Your task to perform on an android device: snooze an email in the gmail app Image 0: 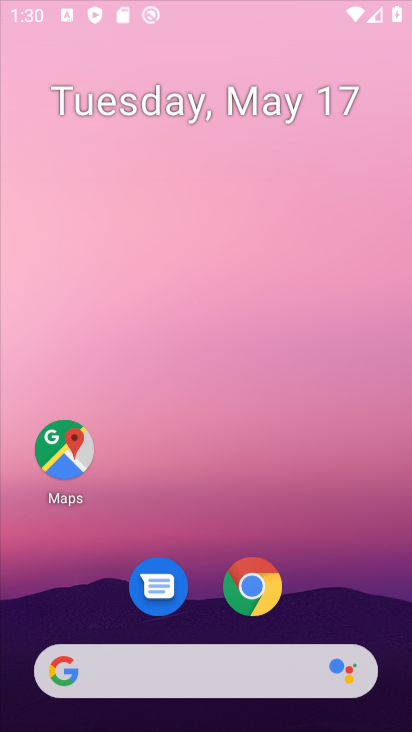
Step 0: click (282, 153)
Your task to perform on an android device: snooze an email in the gmail app Image 1: 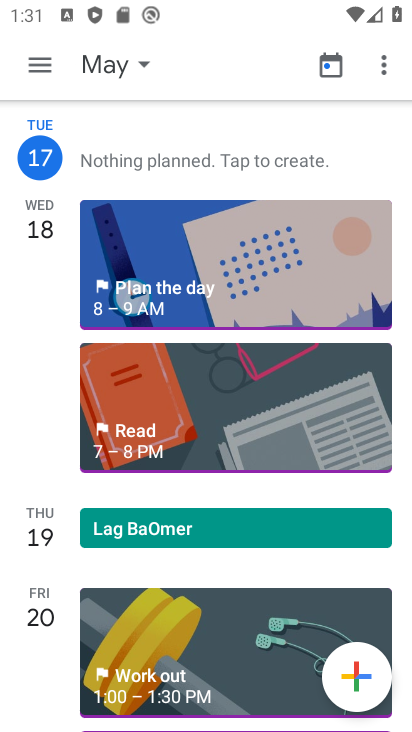
Step 1: drag from (253, 594) to (252, 250)
Your task to perform on an android device: snooze an email in the gmail app Image 2: 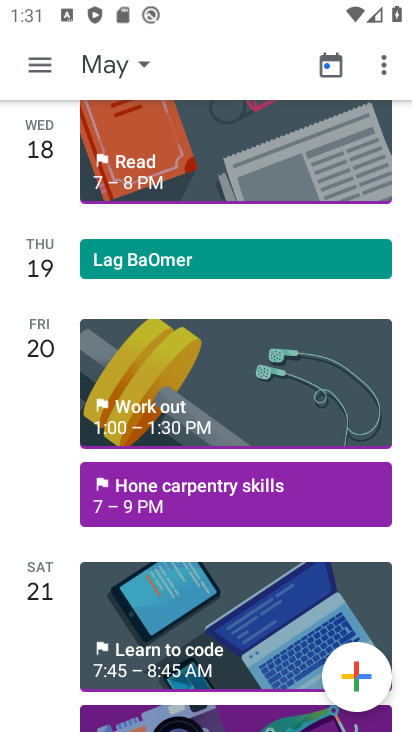
Step 2: click (136, 61)
Your task to perform on an android device: snooze an email in the gmail app Image 3: 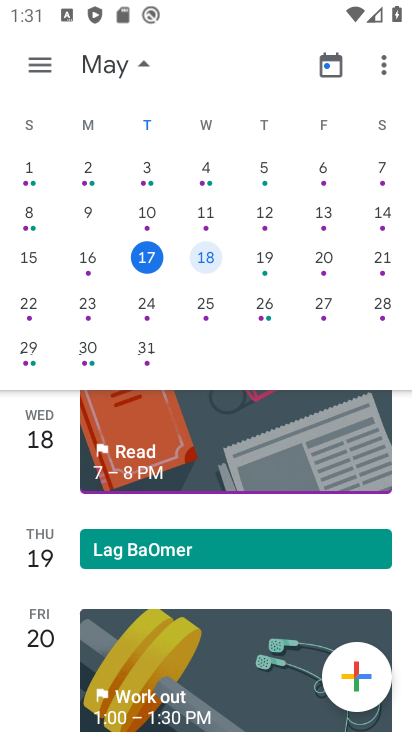
Step 3: press home button
Your task to perform on an android device: snooze an email in the gmail app Image 4: 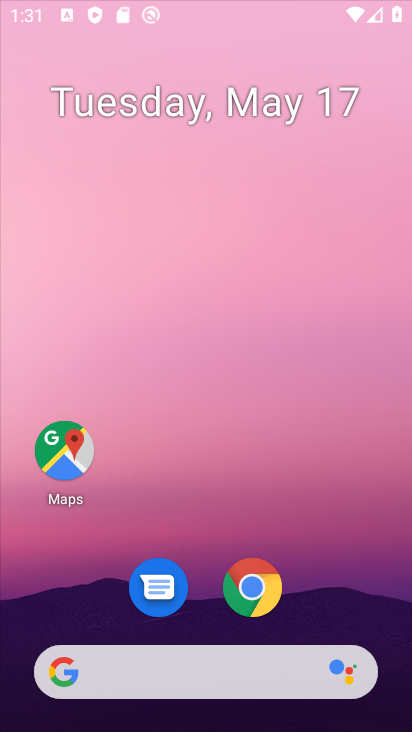
Step 4: drag from (216, 639) to (206, 116)
Your task to perform on an android device: snooze an email in the gmail app Image 5: 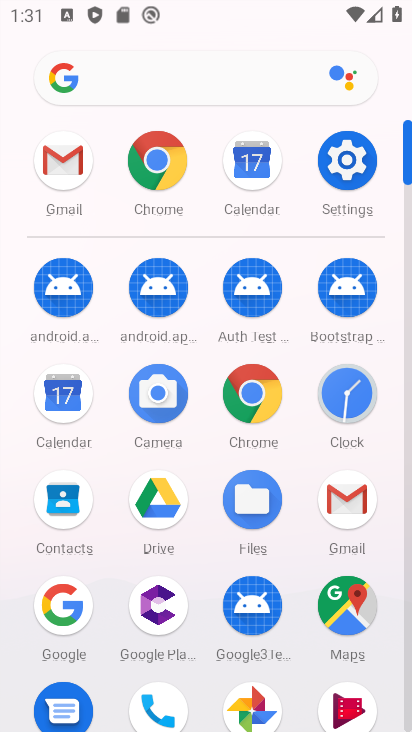
Step 5: click (344, 504)
Your task to perform on an android device: snooze an email in the gmail app Image 6: 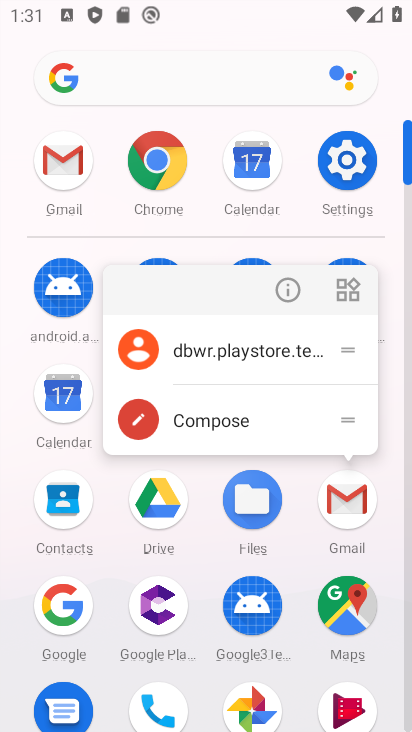
Step 6: click (288, 298)
Your task to perform on an android device: snooze an email in the gmail app Image 7: 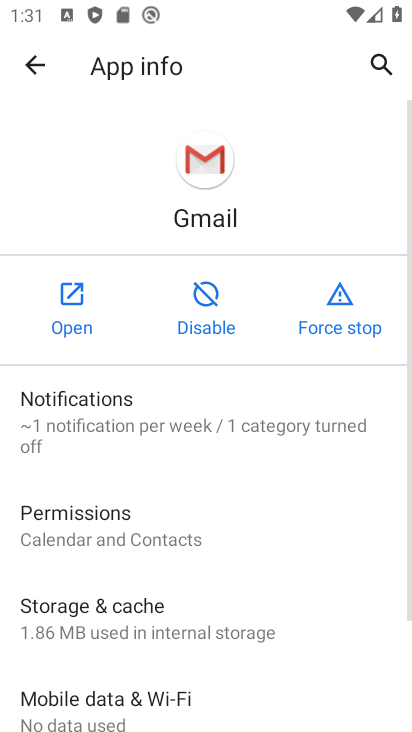
Step 7: click (66, 299)
Your task to perform on an android device: snooze an email in the gmail app Image 8: 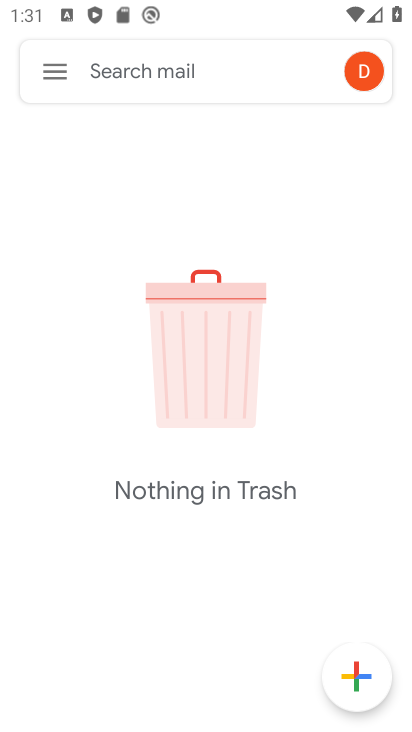
Step 8: task complete